Your task to perform on an android device: Open accessibility settings Image 0: 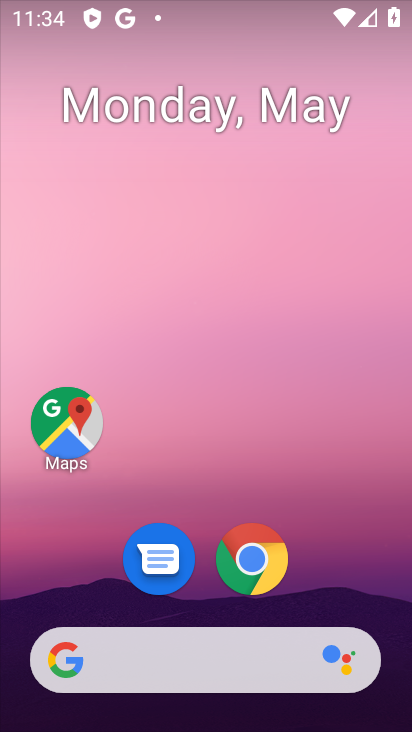
Step 0: drag from (362, 572) to (344, 20)
Your task to perform on an android device: Open accessibility settings Image 1: 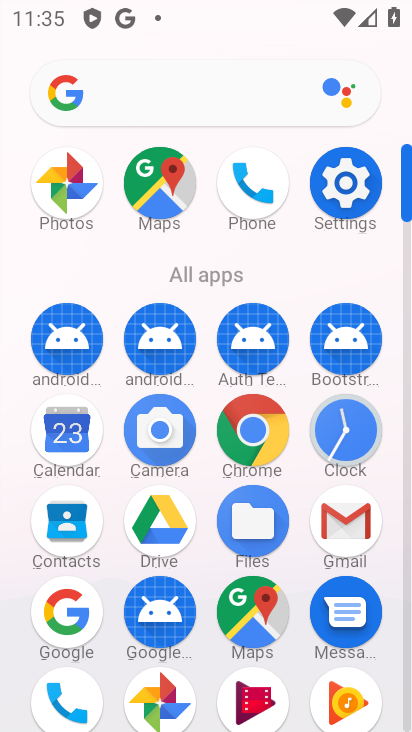
Step 1: click (341, 195)
Your task to perform on an android device: Open accessibility settings Image 2: 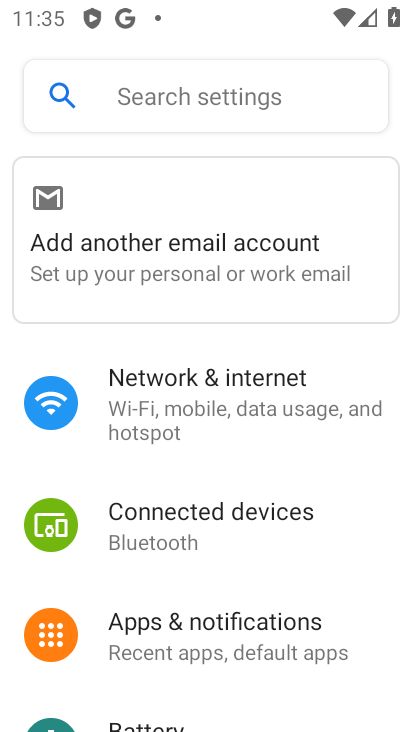
Step 2: drag from (250, 655) to (207, 22)
Your task to perform on an android device: Open accessibility settings Image 3: 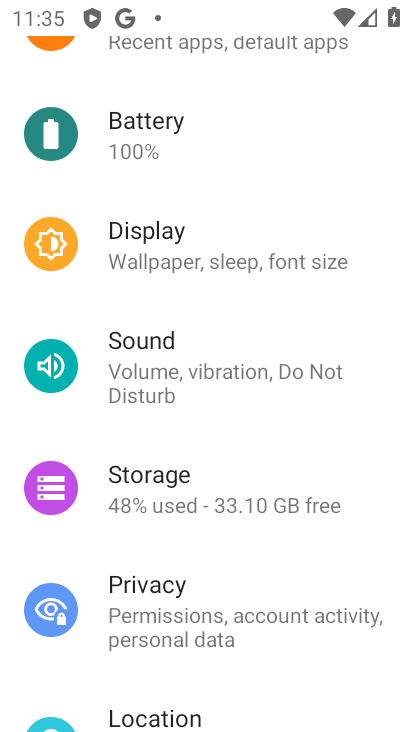
Step 3: drag from (185, 628) to (195, 243)
Your task to perform on an android device: Open accessibility settings Image 4: 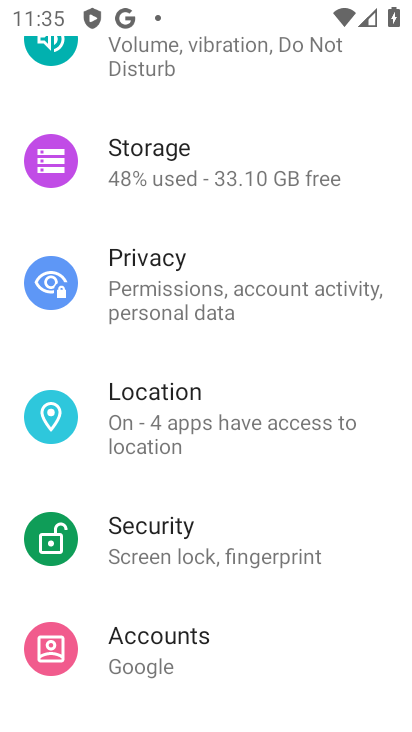
Step 4: drag from (238, 665) to (277, 230)
Your task to perform on an android device: Open accessibility settings Image 5: 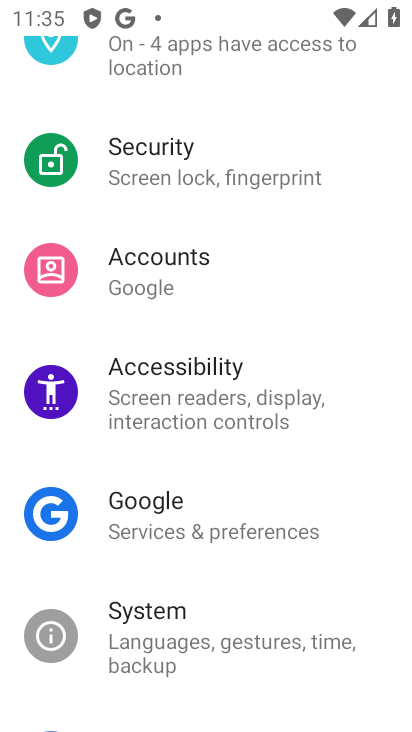
Step 5: click (234, 428)
Your task to perform on an android device: Open accessibility settings Image 6: 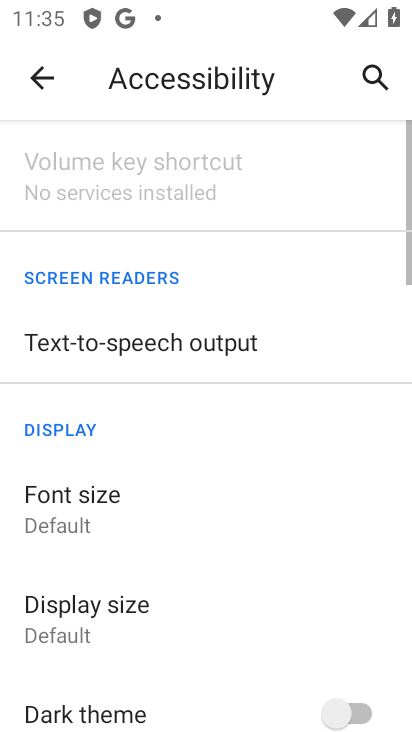
Step 6: task complete